Your task to perform on an android device: Clear all items from cart on costco. Search for "dell alienware" on costco, select the first entry, and add it to the cart. Image 0: 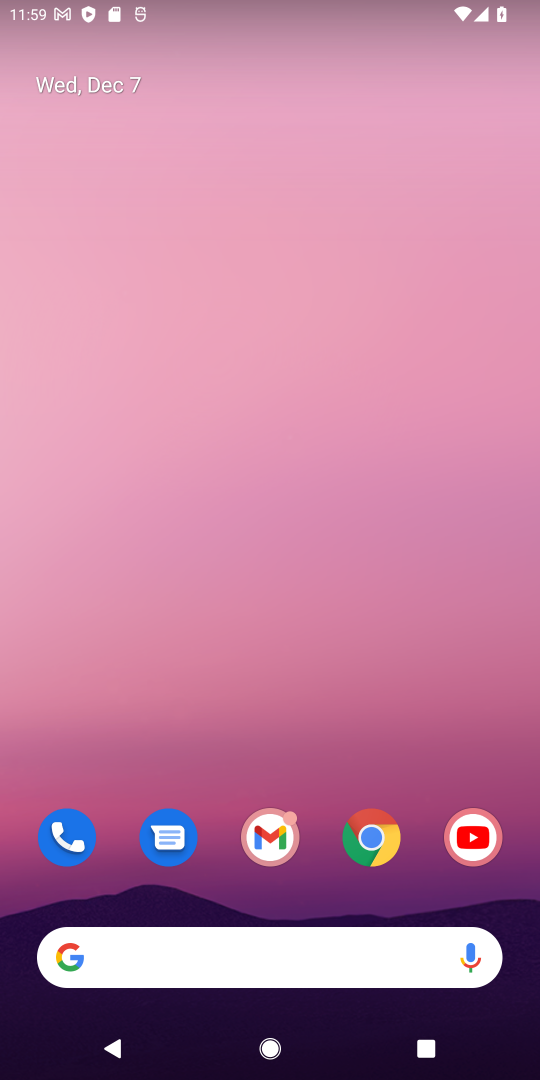
Step 0: click (364, 828)
Your task to perform on an android device: Clear all items from cart on costco. Search for "dell alienware" on costco, select the first entry, and add it to the cart. Image 1: 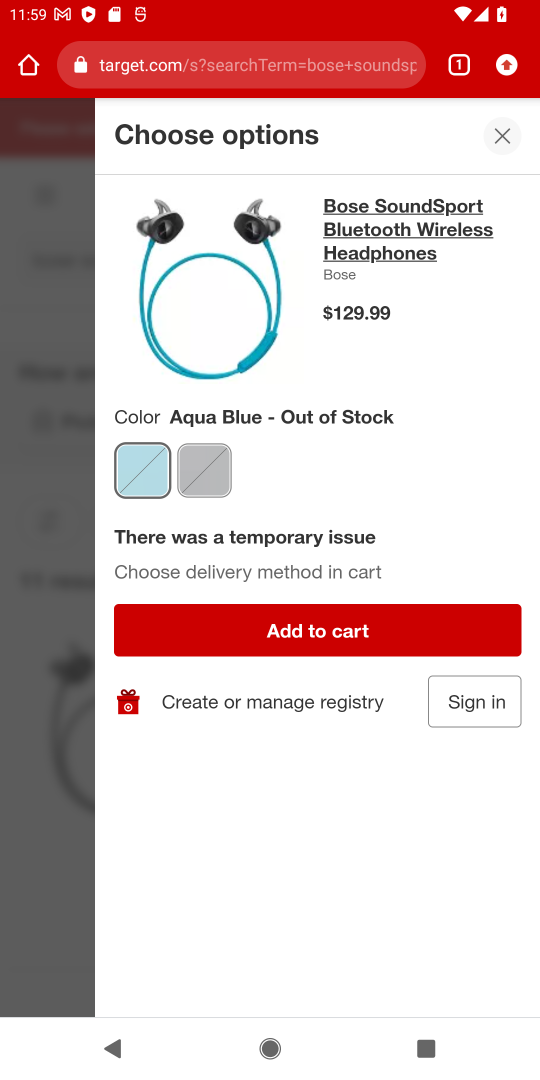
Step 1: click (171, 88)
Your task to perform on an android device: Clear all items from cart on costco. Search for "dell alienware" on costco, select the first entry, and add it to the cart. Image 2: 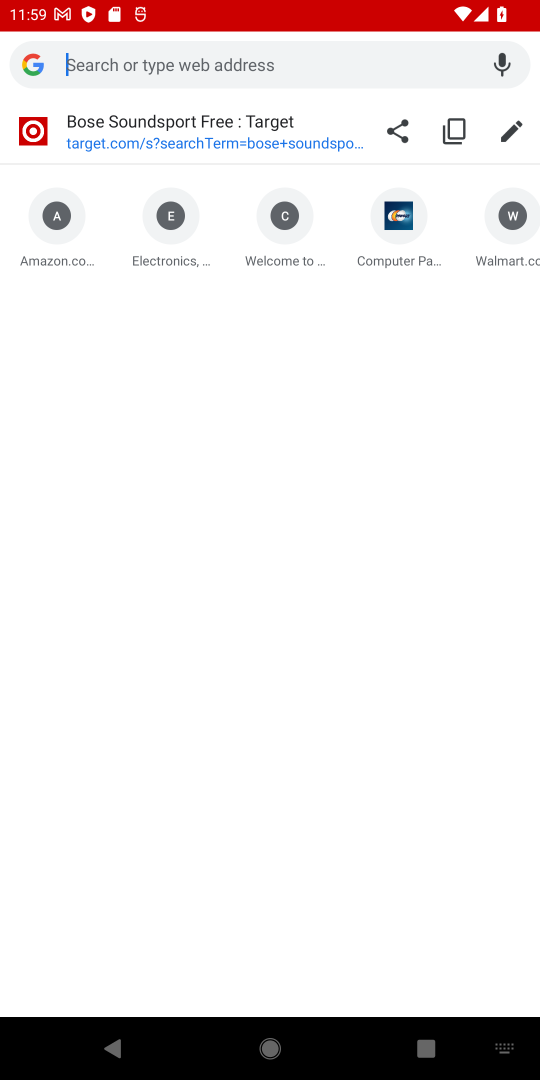
Step 2: type "costco"
Your task to perform on an android device: Clear all items from cart on costco. Search for "dell alienware" on costco, select the first entry, and add it to the cart. Image 3: 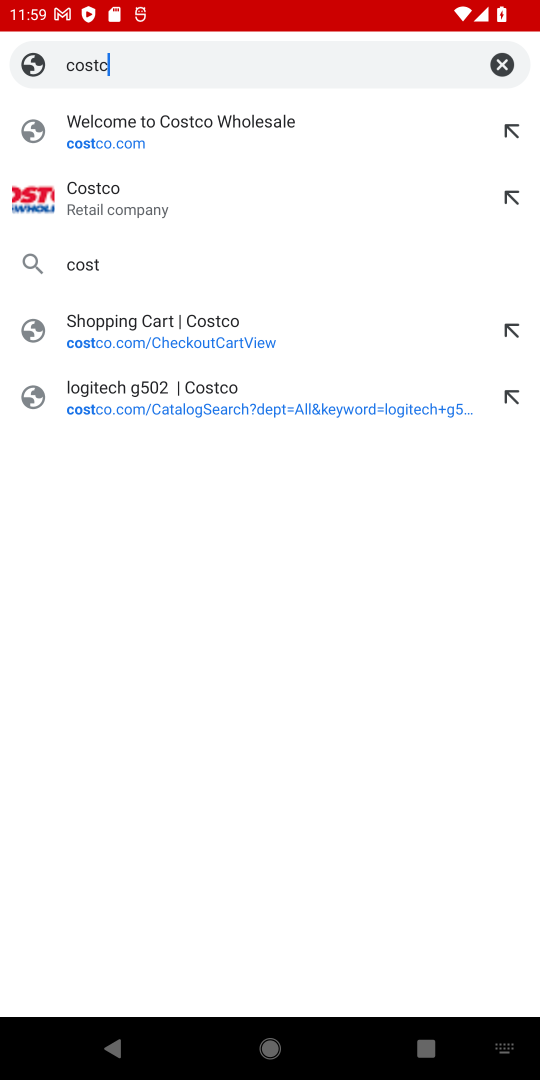
Step 3: press enter
Your task to perform on an android device: Clear all items from cart on costco. Search for "dell alienware" on costco, select the first entry, and add it to the cart. Image 4: 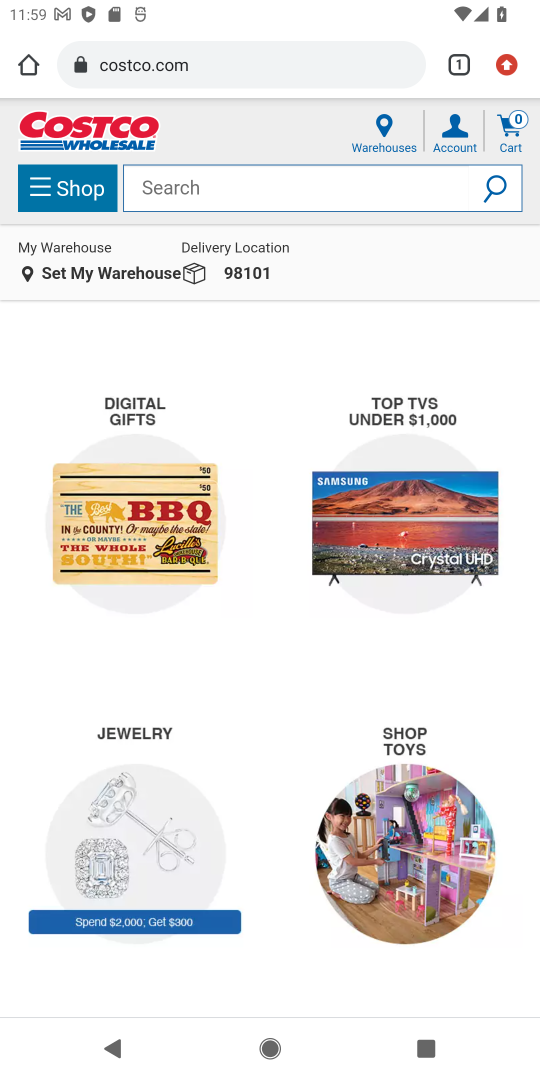
Step 4: click (511, 137)
Your task to perform on an android device: Clear all items from cart on costco. Search for "dell alienware" on costco, select the first entry, and add it to the cart. Image 5: 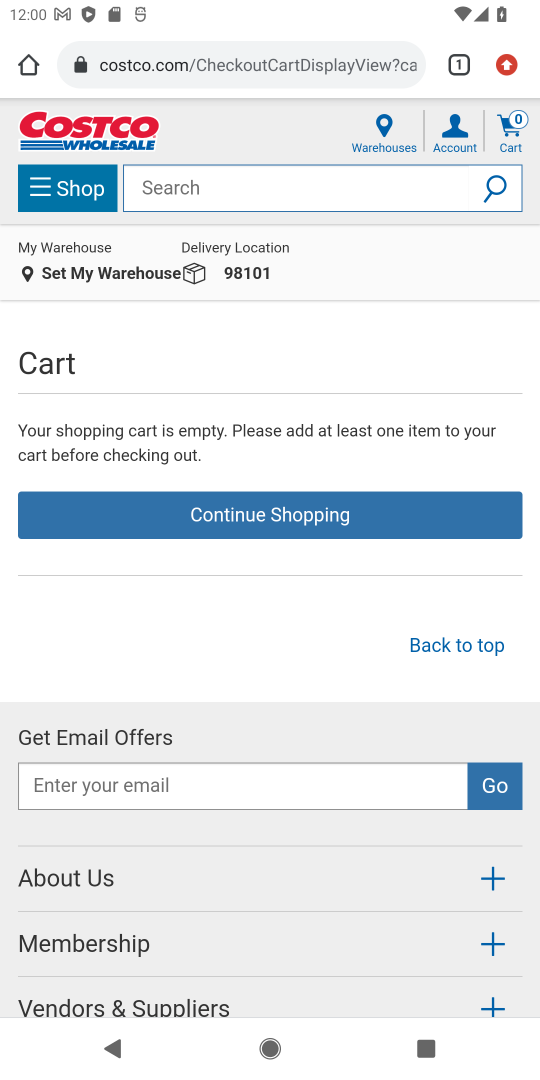
Step 5: click (319, 186)
Your task to perform on an android device: Clear all items from cart on costco. Search for "dell alienware" on costco, select the first entry, and add it to the cart. Image 6: 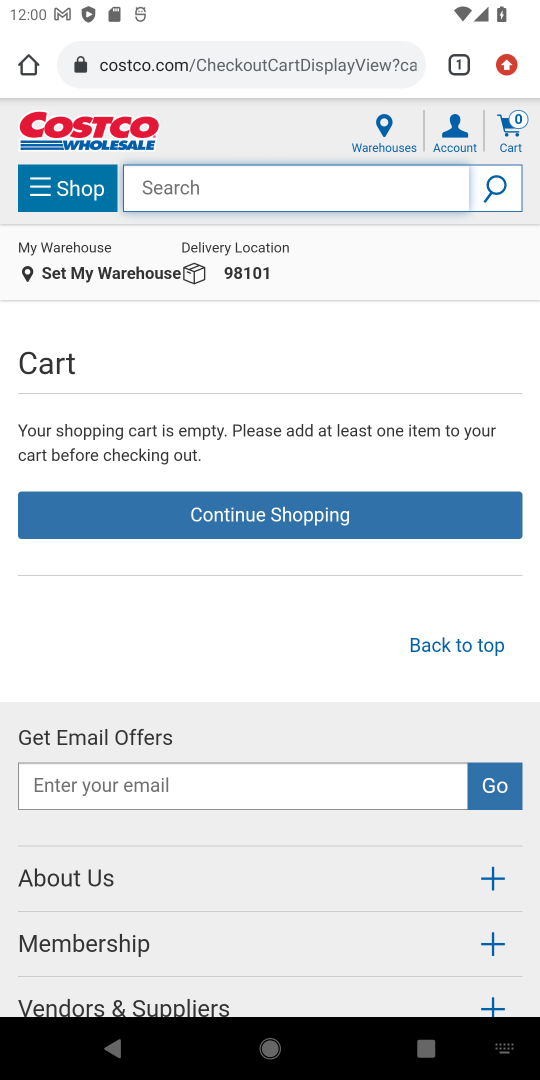
Step 6: type "dell alienware"
Your task to perform on an android device: Clear all items from cart on costco. Search for "dell alienware" on costco, select the first entry, and add it to the cart. Image 7: 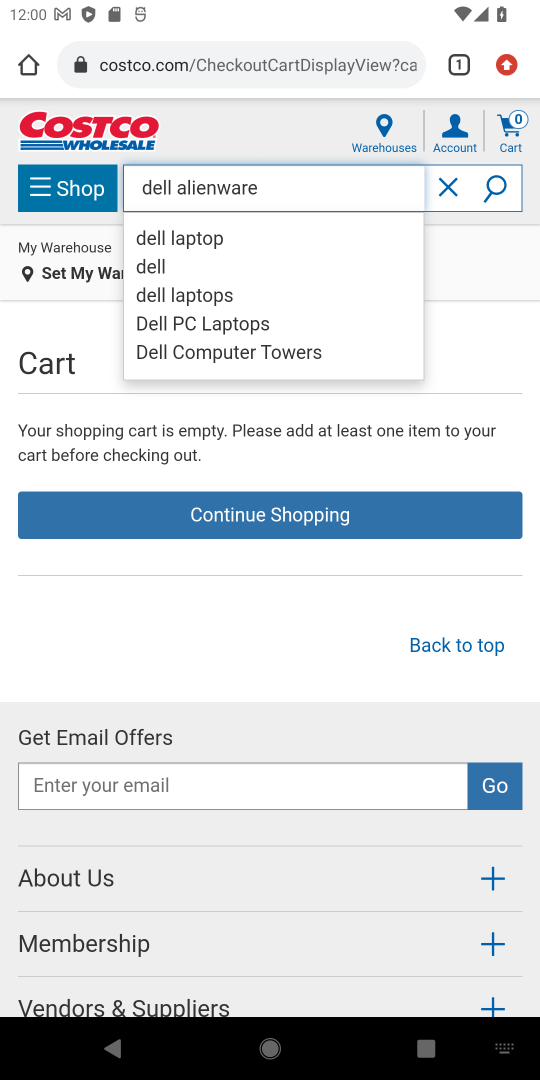
Step 7: press enter
Your task to perform on an android device: Clear all items from cart on costco. Search for "dell alienware" on costco, select the first entry, and add it to the cart. Image 8: 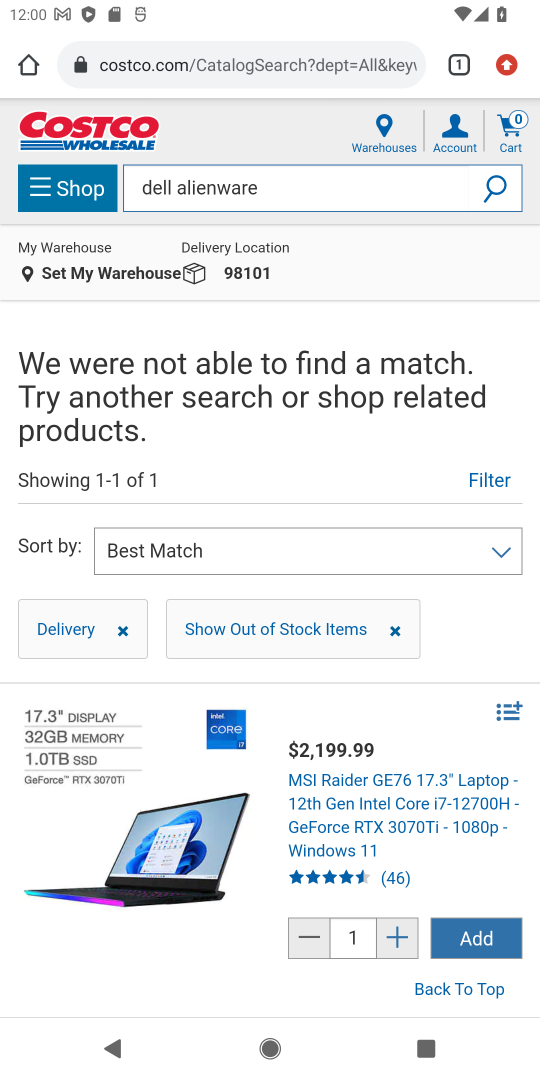
Step 8: task complete